Your task to perform on an android device: Open Yahoo.com Image 0: 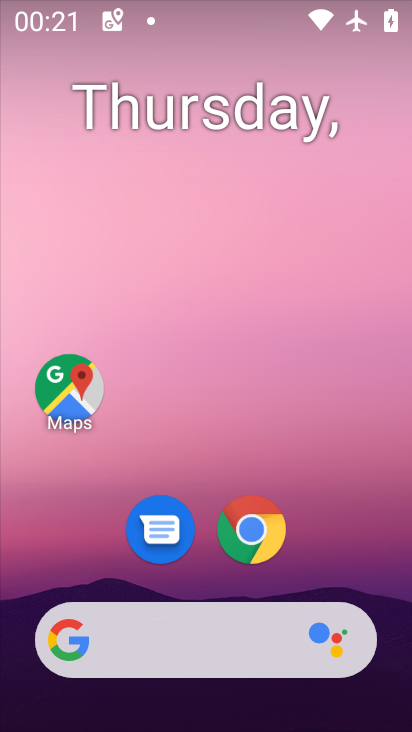
Step 0: click (255, 531)
Your task to perform on an android device: Open Yahoo.com Image 1: 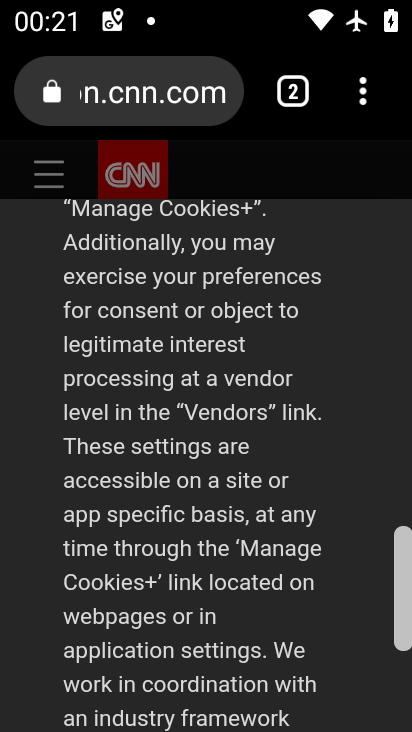
Step 1: click (125, 89)
Your task to perform on an android device: Open Yahoo.com Image 2: 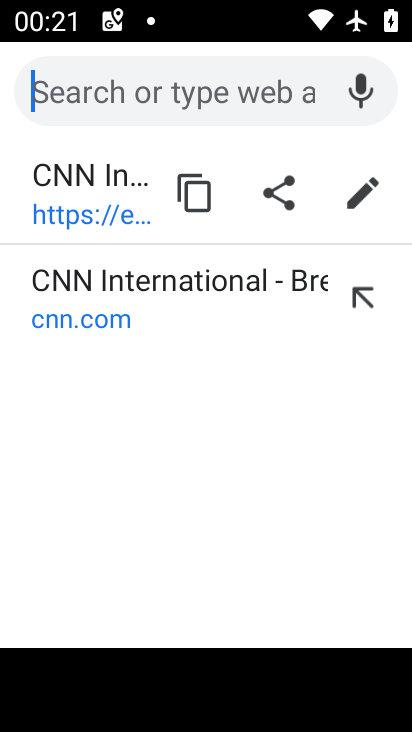
Step 2: type "yahoo.com"
Your task to perform on an android device: Open Yahoo.com Image 3: 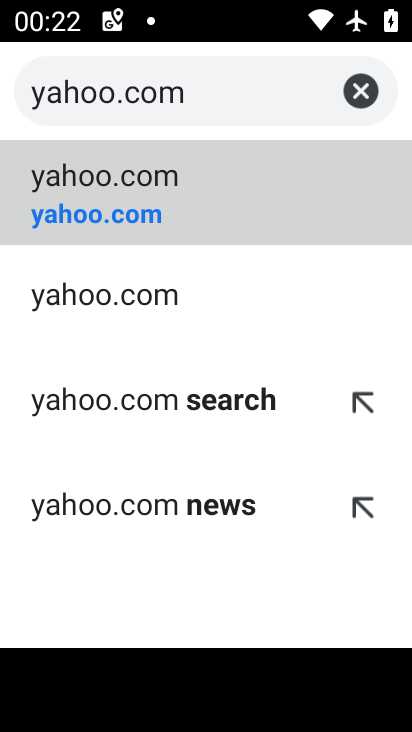
Step 3: click (106, 185)
Your task to perform on an android device: Open Yahoo.com Image 4: 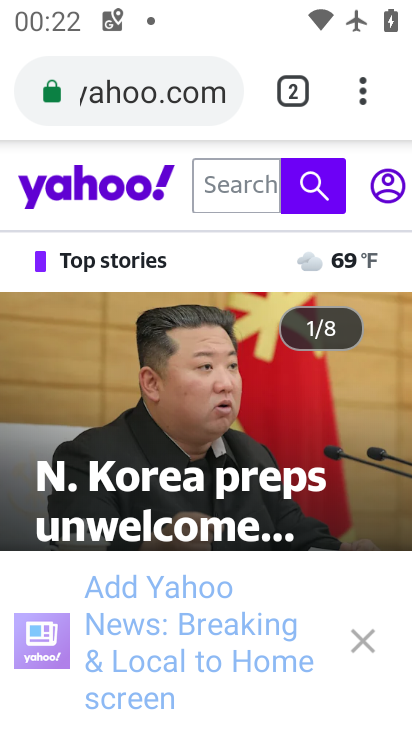
Step 4: drag from (279, 577) to (253, 309)
Your task to perform on an android device: Open Yahoo.com Image 5: 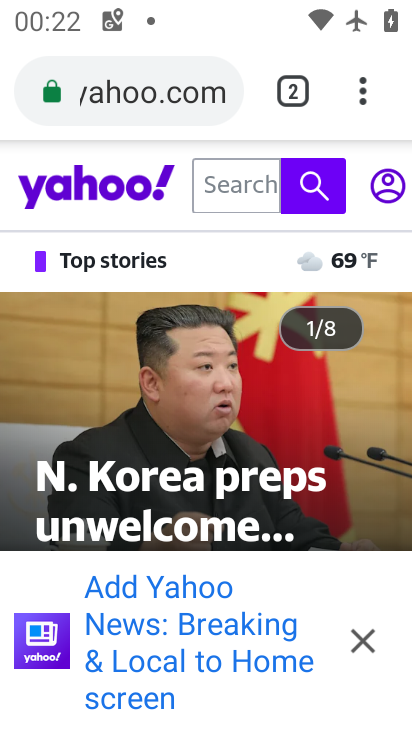
Step 5: click (361, 637)
Your task to perform on an android device: Open Yahoo.com Image 6: 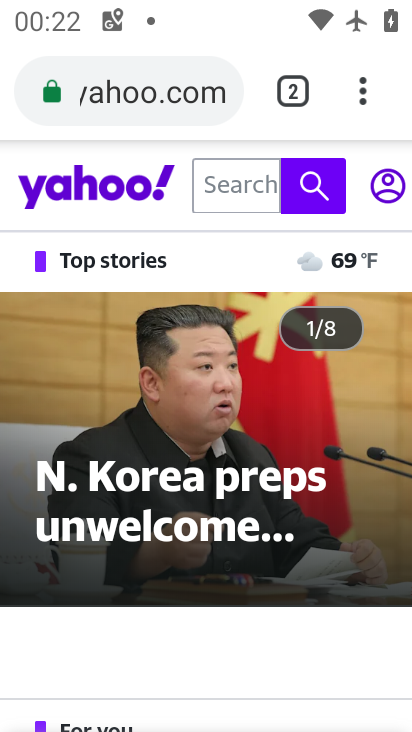
Step 6: task complete